Your task to perform on an android device: Go to internet settings Image 0: 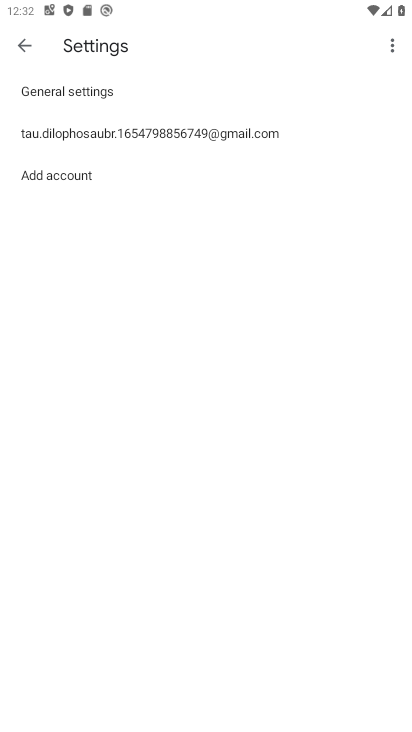
Step 0: press home button
Your task to perform on an android device: Go to internet settings Image 1: 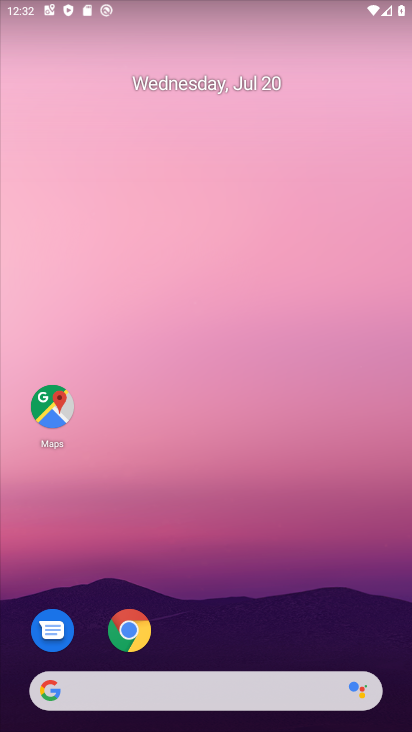
Step 1: drag from (240, 541) to (254, 102)
Your task to perform on an android device: Go to internet settings Image 2: 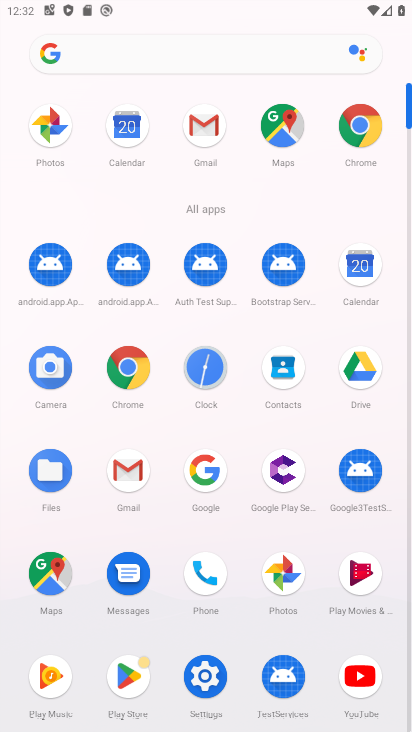
Step 2: click (206, 677)
Your task to perform on an android device: Go to internet settings Image 3: 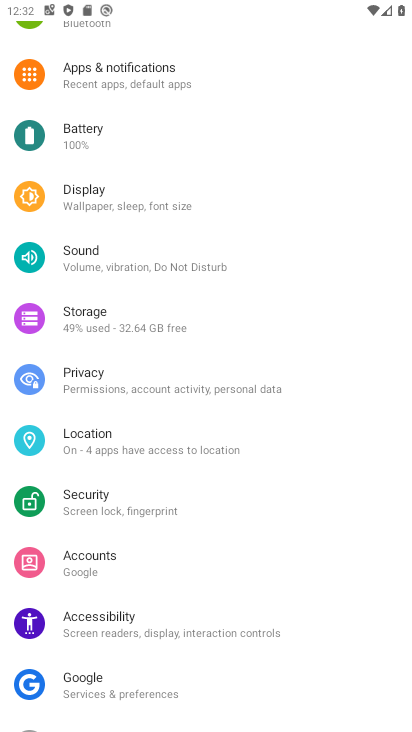
Step 3: drag from (154, 111) to (221, 545)
Your task to perform on an android device: Go to internet settings Image 4: 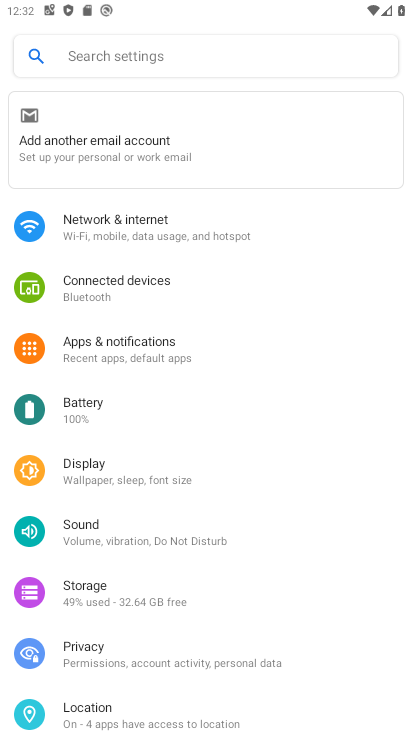
Step 4: click (160, 224)
Your task to perform on an android device: Go to internet settings Image 5: 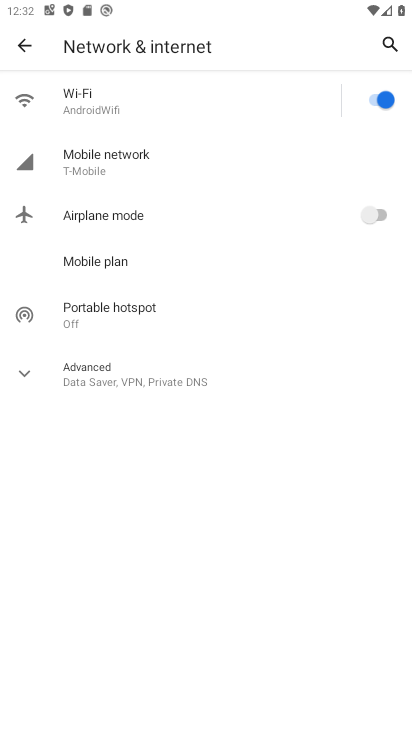
Step 5: task complete